Your task to perform on an android device: Open eBay Image 0: 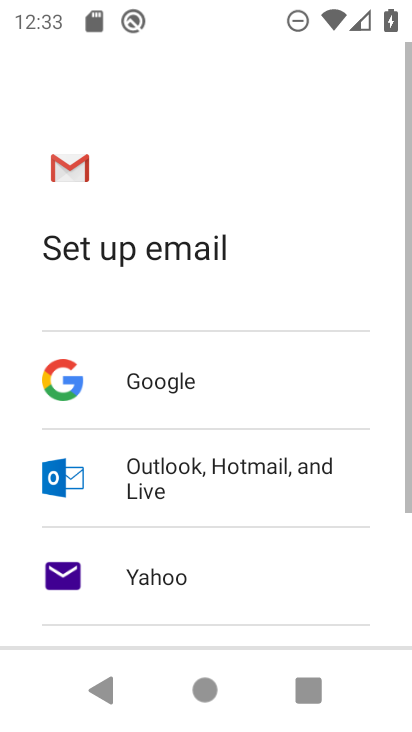
Step 0: press home button
Your task to perform on an android device: Open eBay Image 1: 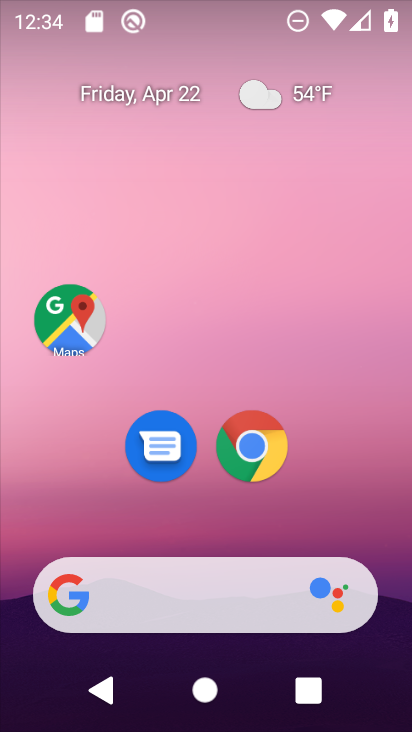
Step 1: click (266, 454)
Your task to perform on an android device: Open eBay Image 2: 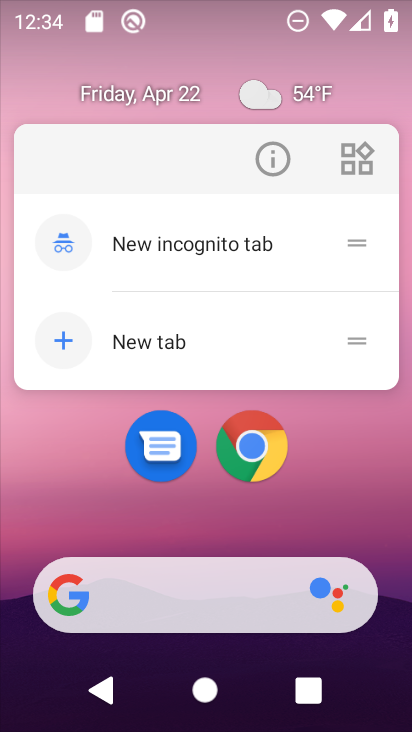
Step 2: click (266, 454)
Your task to perform on an android device: Open eBay Image 3: 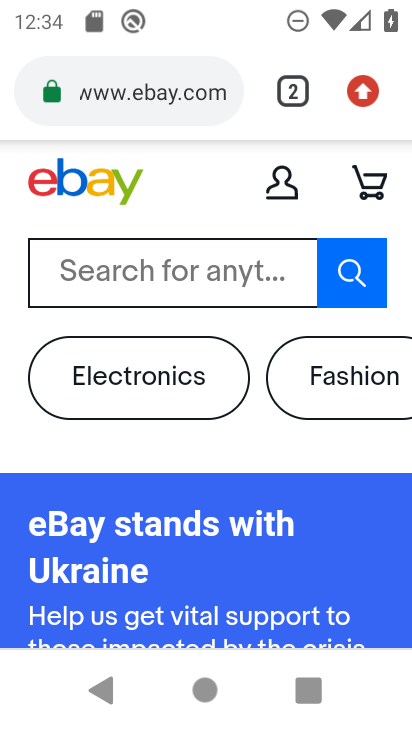
Step 3: task complete